Your task to perform on an android device: Open the calendar app, open the side menu, and click the "Day" option Image 0: 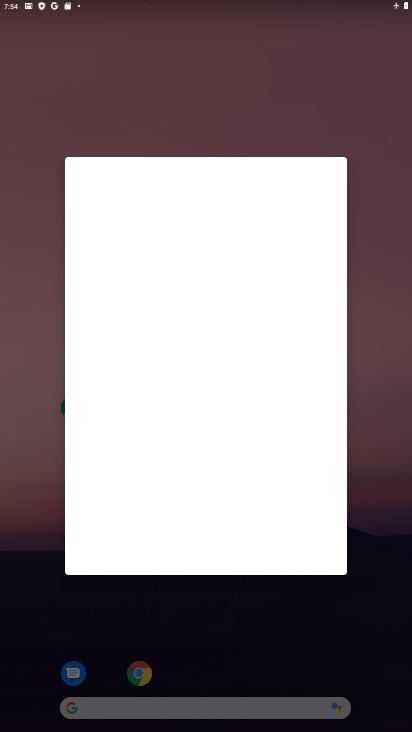
Step 0: drag from (192, 631) to (214, 104)
Your task to perform on an android device: Open the calendar app, open the side menu, and click the "Day" option Image 1: 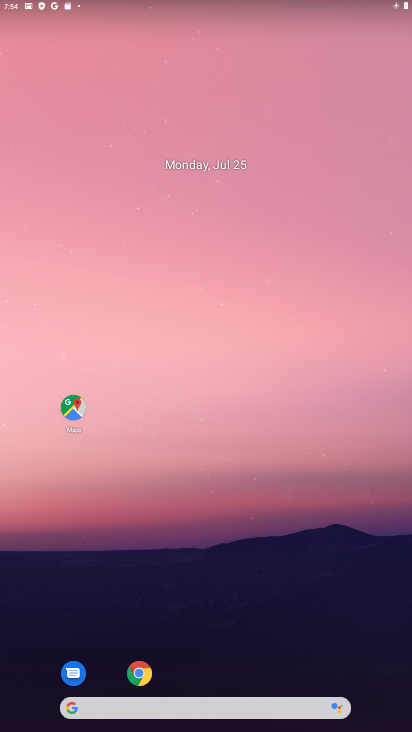
Step 1: drag from (199, 669) to (270, 78)
Your task to perform on an android device: Open the calendar app, open the side menu, and click the "Day" option Image 2: 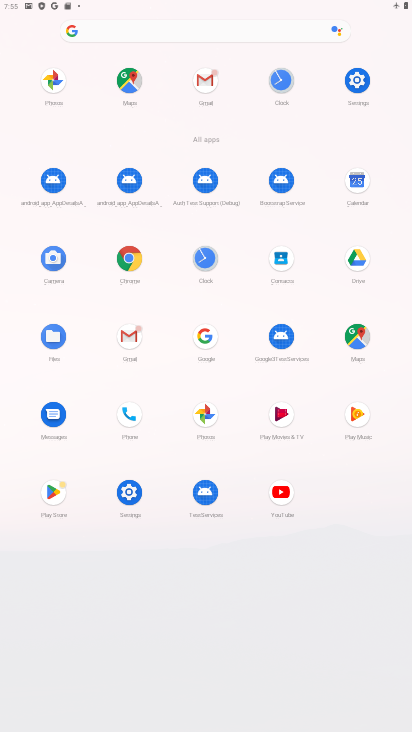
Step 2: click (349, 182)
Your task to perform on an android device: Open the calendar app, open the side menu, and click the "Day" option Image 3: 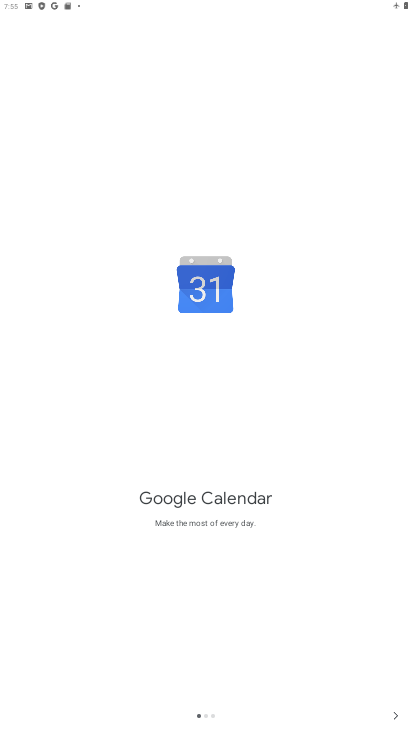
Step 3: click (388, 712)
Your task to perform on an android device: Open the calendar app, open the side menu, and click the "Day" option Image 4: 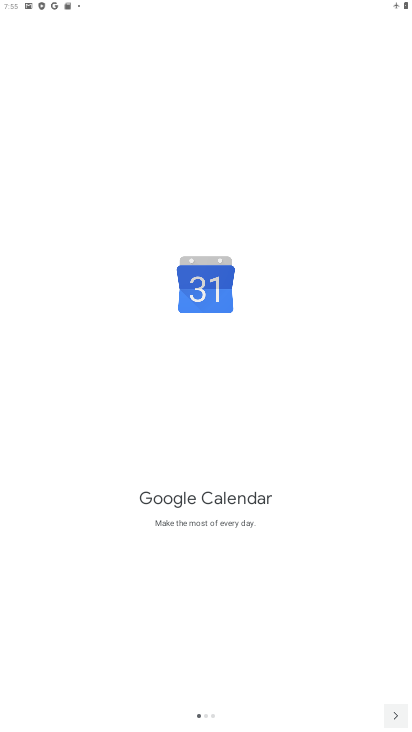
Step 4: click (388, 712)
Your task to perform on an android device: Open the calendar app, open the side menu, and click the "Day" option Image 5: 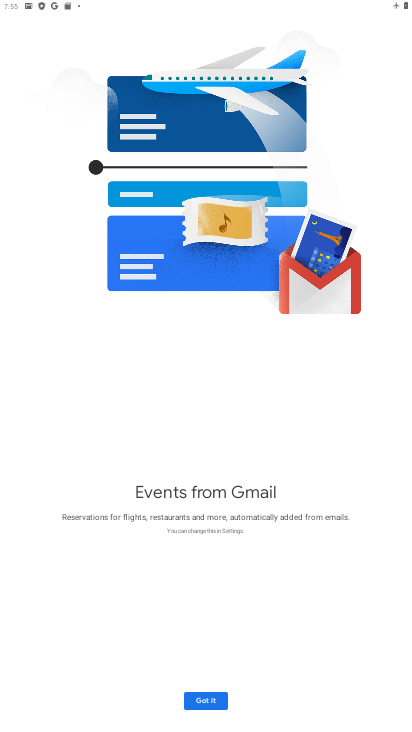
Step 5: click (397, 709)
Your task to perform on an android device: Open the calendar app, open the side menu, and click the "Day" option Image 6: 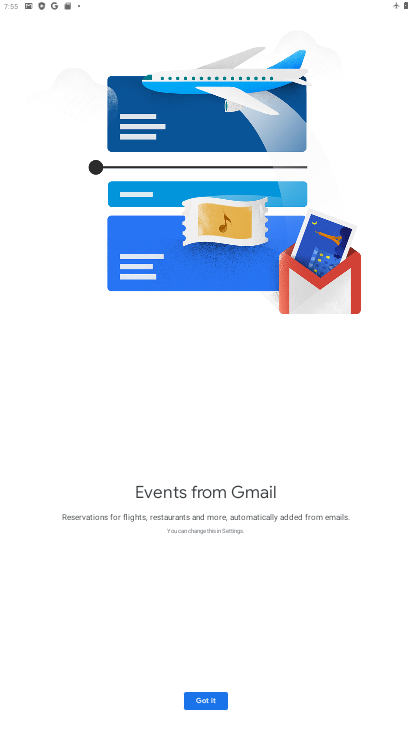
Step 6: click (397, 709)
Your task to perform on an android device: Open the calendar app, open the side menu, and click the "Day" option Image 7: 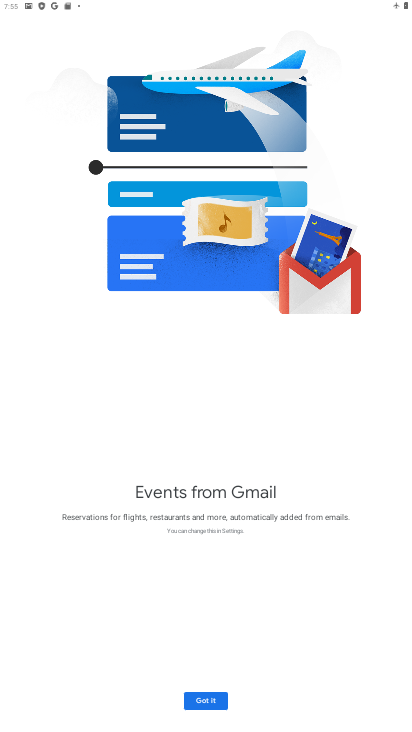
Step 7: click (397, 709)
Your task to perform on an android device: Open the calendar app, open the side menu, and click the "Day" option Image 8: 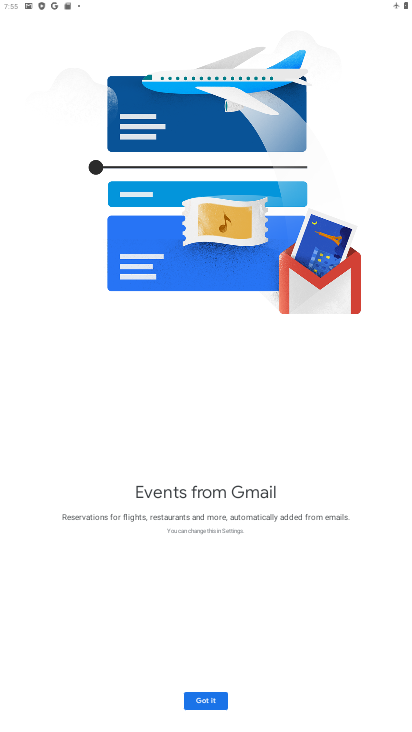
Step 8: click (197, 700)
Your task to perform on an android device: Open the calendar app, open the side menu, and click the "Day" option Image 9: 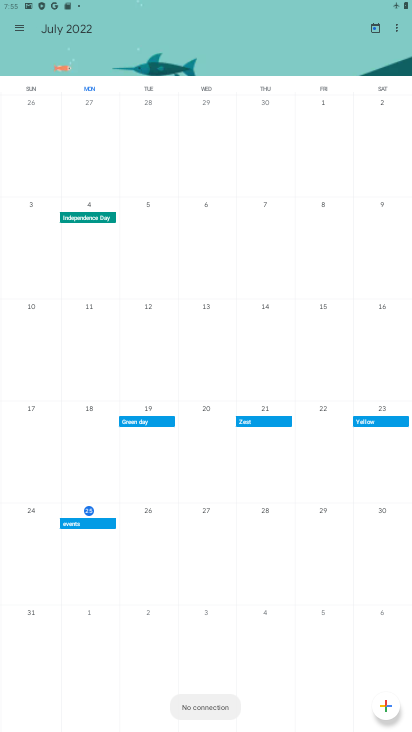
Step 9: drag from (192, 583) to (142, 361)
Your task to perform on an android device: Open the calendar app, open the side menu, and click the "Day" option Image 10: 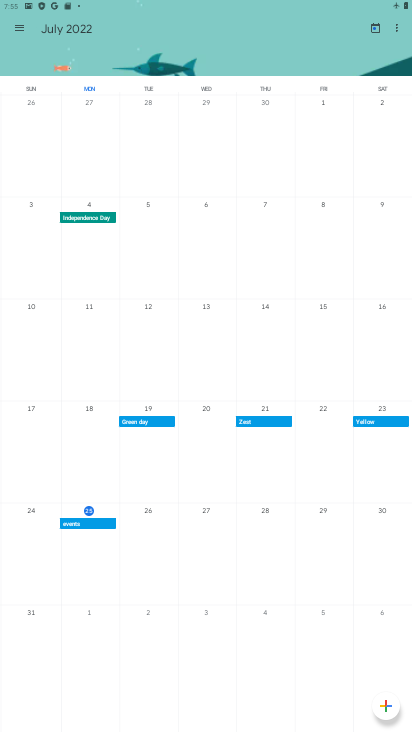
Step 10: click (12, 18)
Your task to perform on an android device: Open the calendar app, open the side menu, and click the "Day" option Image 11: 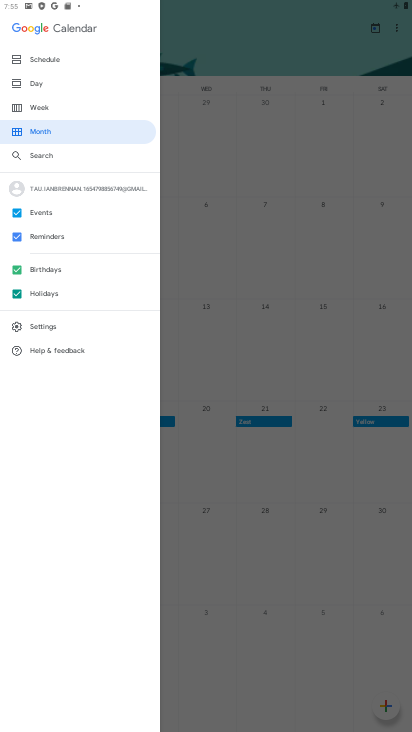
Step 11: click (36, 78)
Your task to perform on an android device: Open the calendar app, open the side menu, and click the "Day" option Image 12: 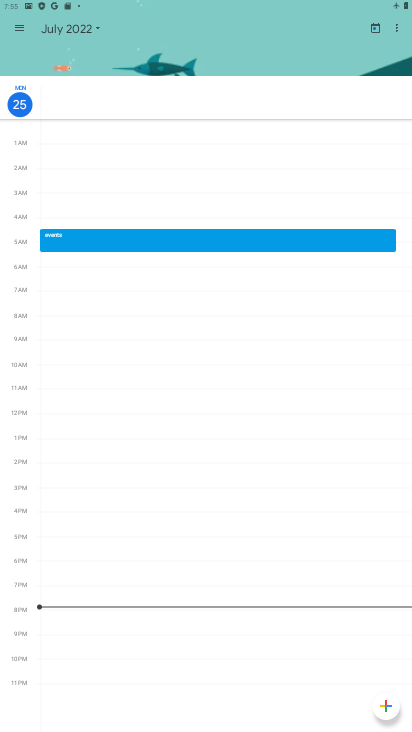
Step 12: task complete